Your task to perform on an android device: Add dell alienware to the cart on walmart.com Image 0: 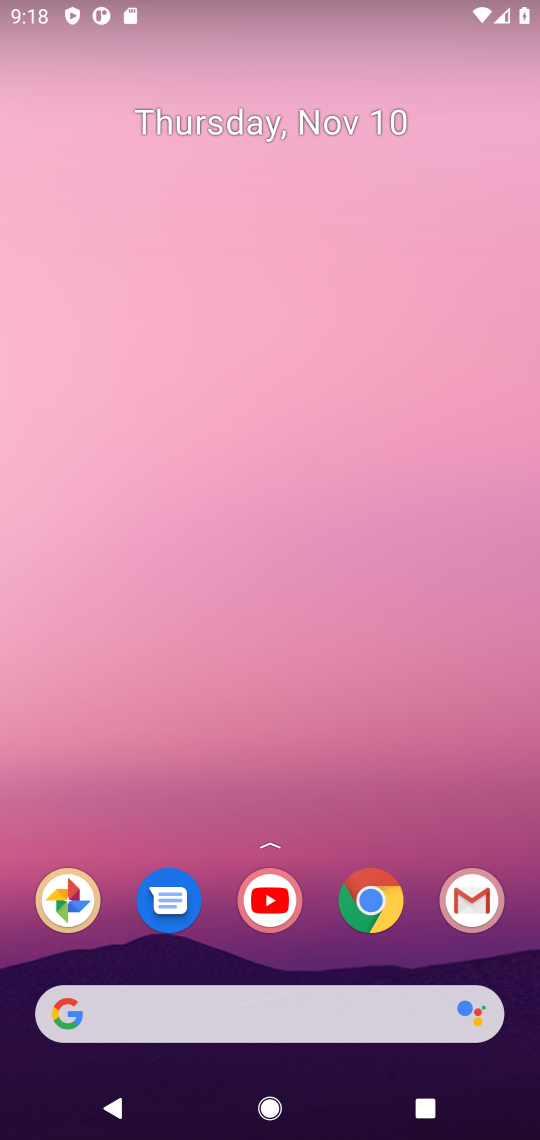
Step 0: click (367, 917)
Your task to perform on an android device: Add dell alienware to the cart on walmart.com Image 1: 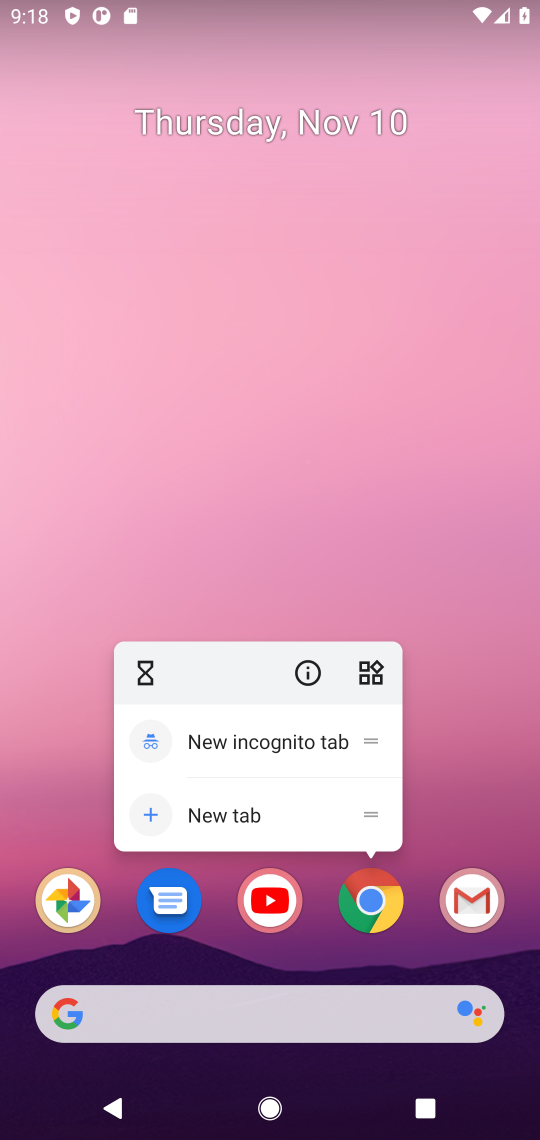
Step 1: click (368, 898)
Your task to perform on an android device: Add dell alienware to the cart on walmart.com Image 2: 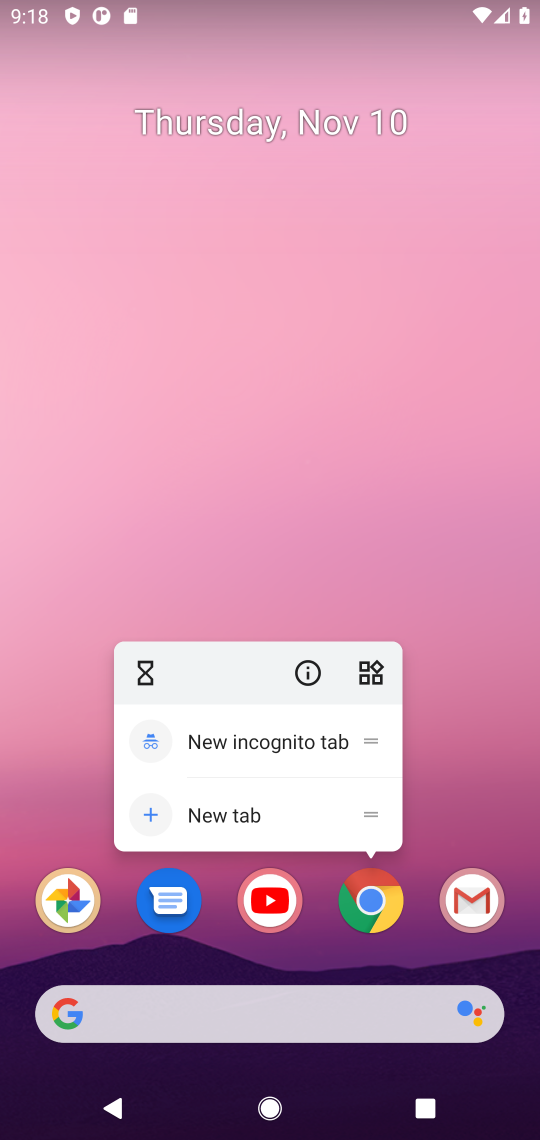
Step 2: click (368, 900)
Your task to perform on an android device: Add dell alienware to the cart on walmart.com Image 3: 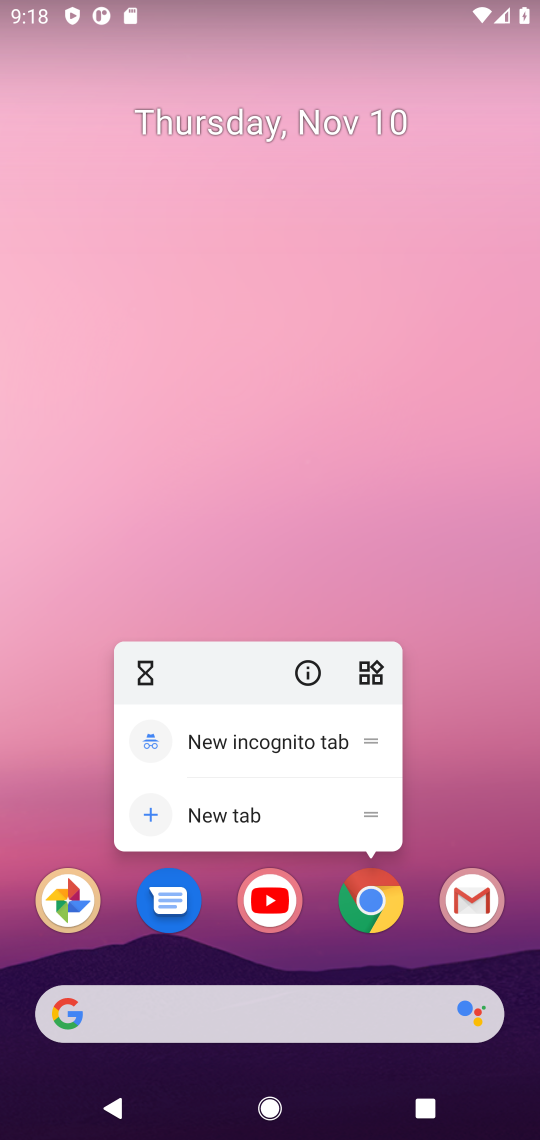
Step 3: click (377, 897)
Your task to perform on an android device: Add dell alienware to the cart on walmart.com Image 4: 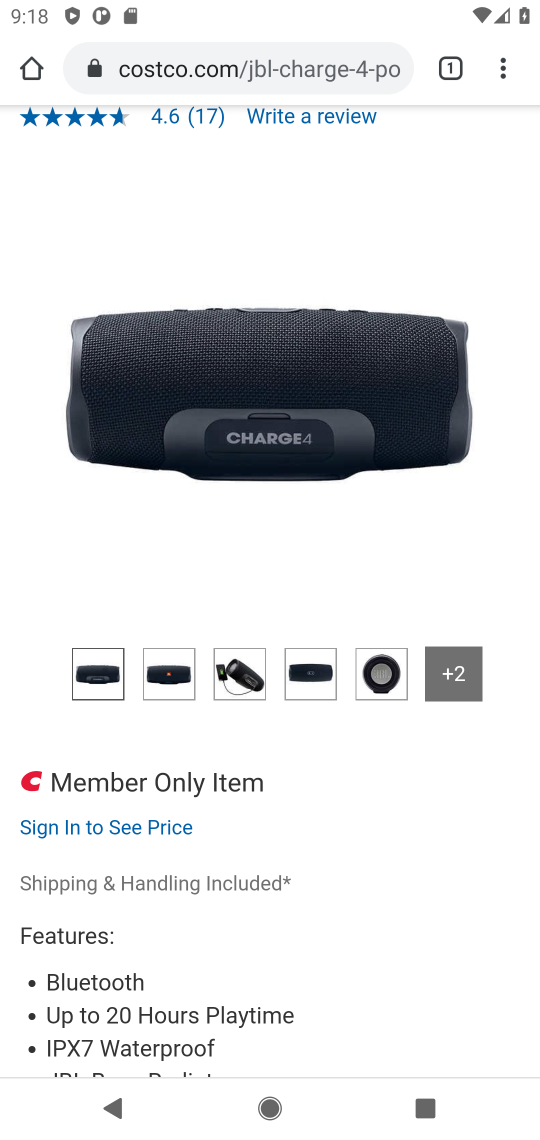
Step 4: click (322, 65)
Your task to perform on an android device: Add dell alienware to the cart on walmart.com Image 5: 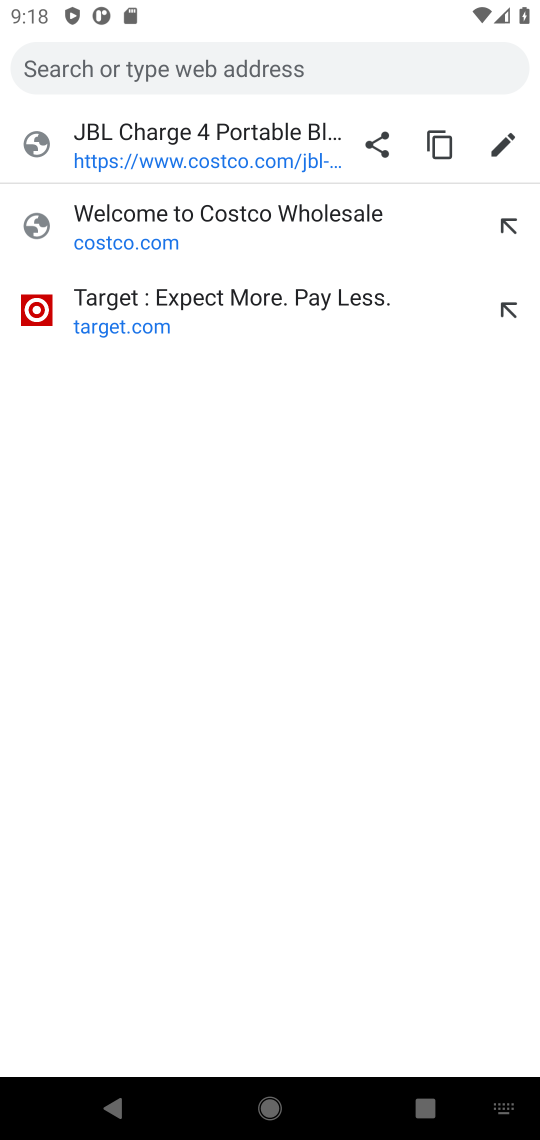
Step 5: type "walmart.com"
Your task to perform on an android device: Add dell alienware to the cart on walmart.com Image 6: 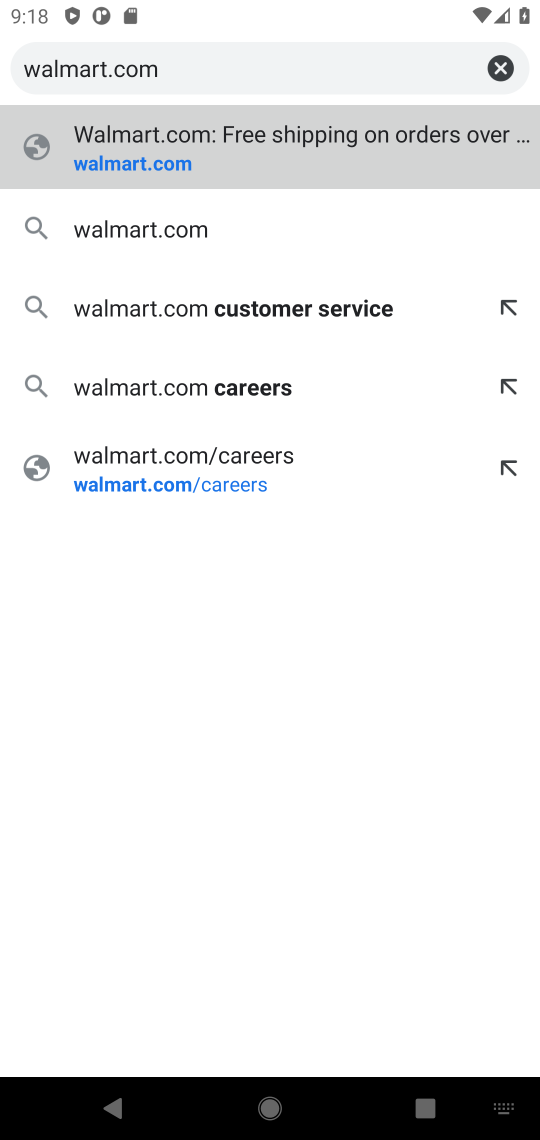
Step 6: press enter
Your task to perform on an android device: Add dell alienware to the cart on walmart.com Image 7: 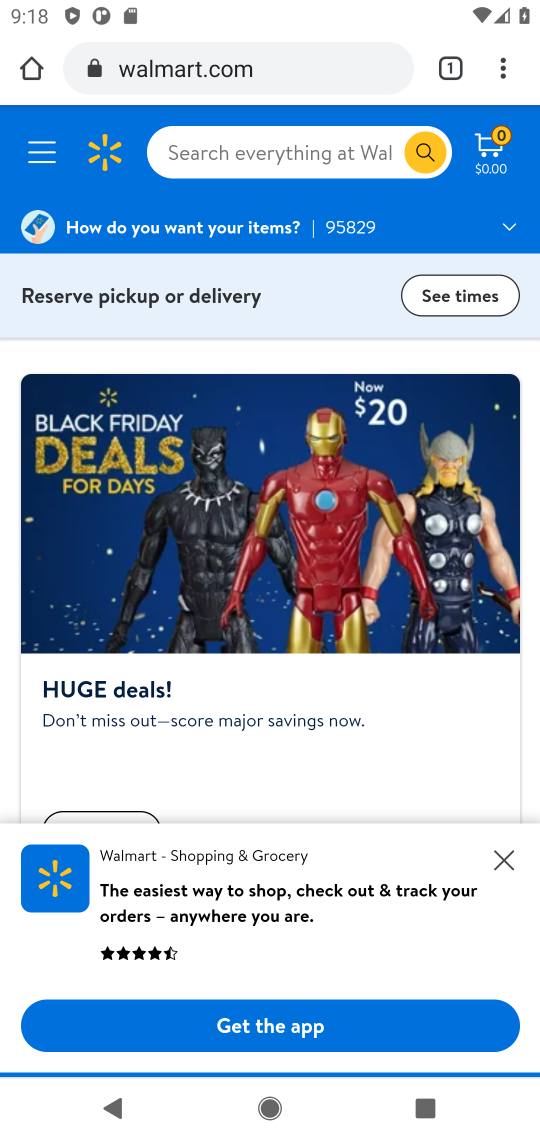
Step 7: click (288, 148)
Your task to perform on an android device: Add dell alienware to the cart on walmart.com Image 8: 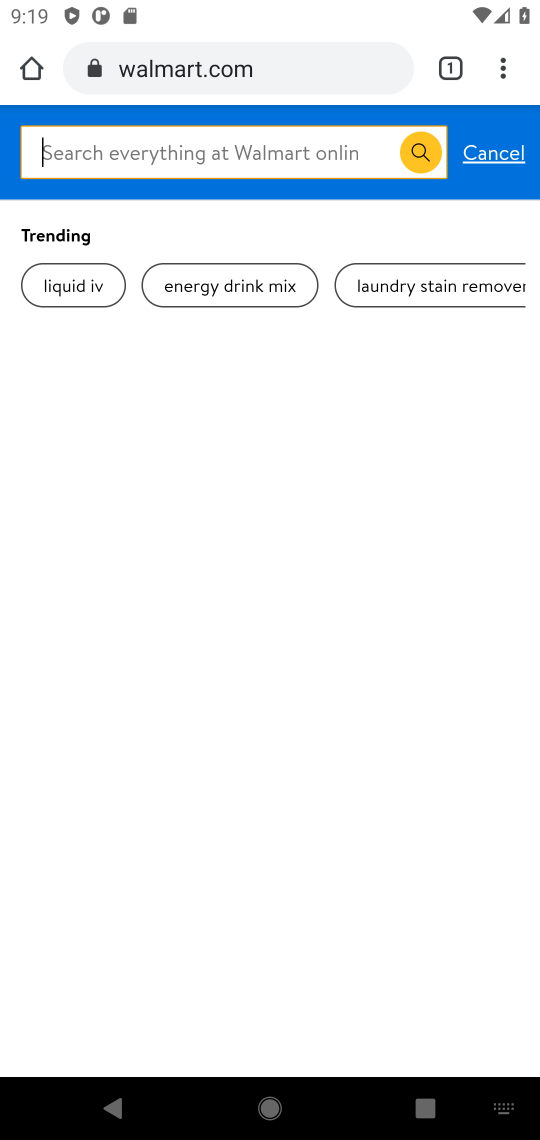
Step 8: type "dell alienware"
Your task to perform on an android device: Add dell alienware to the cart on walmart.com Image 9: 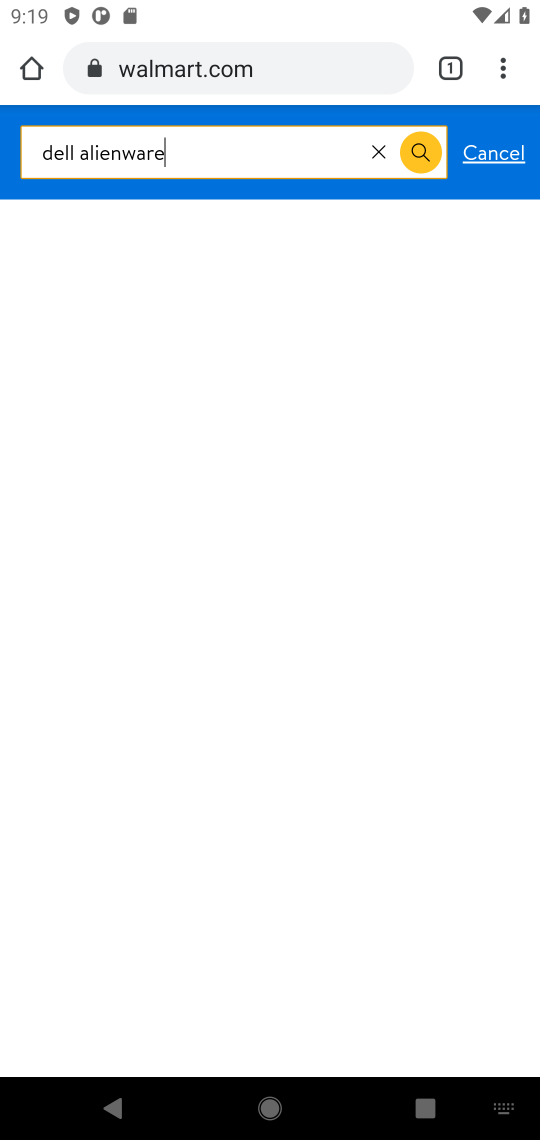
Step 9: press enter
Your task to perform on an android device: Add dell alienware to the cart on walmart.com Image 10: 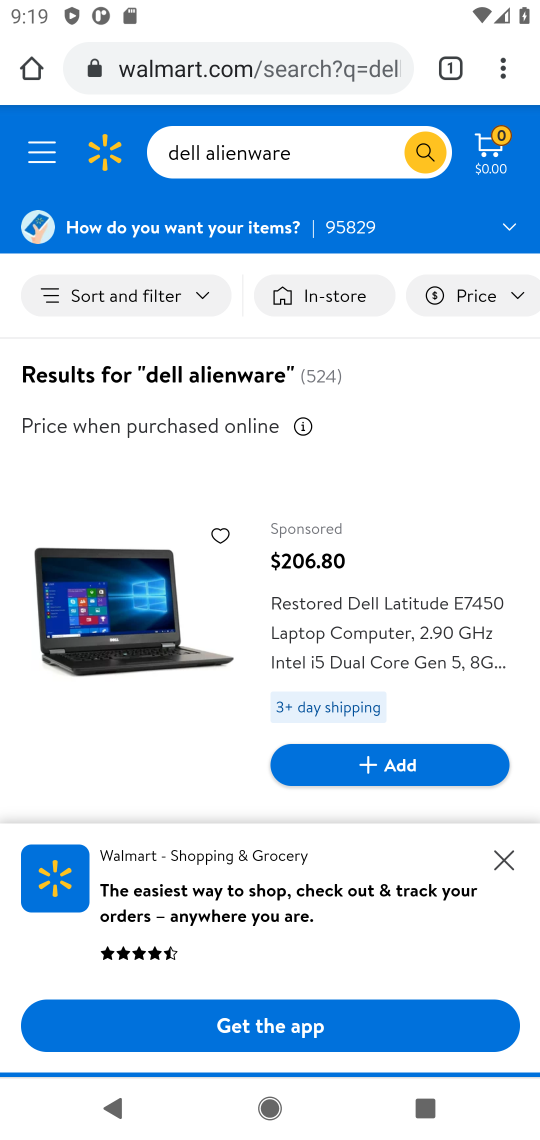
Step 10: click (499, 857)
Your task to perform on an android device: Add dell alienware to the cart on walmart.com Image 11: 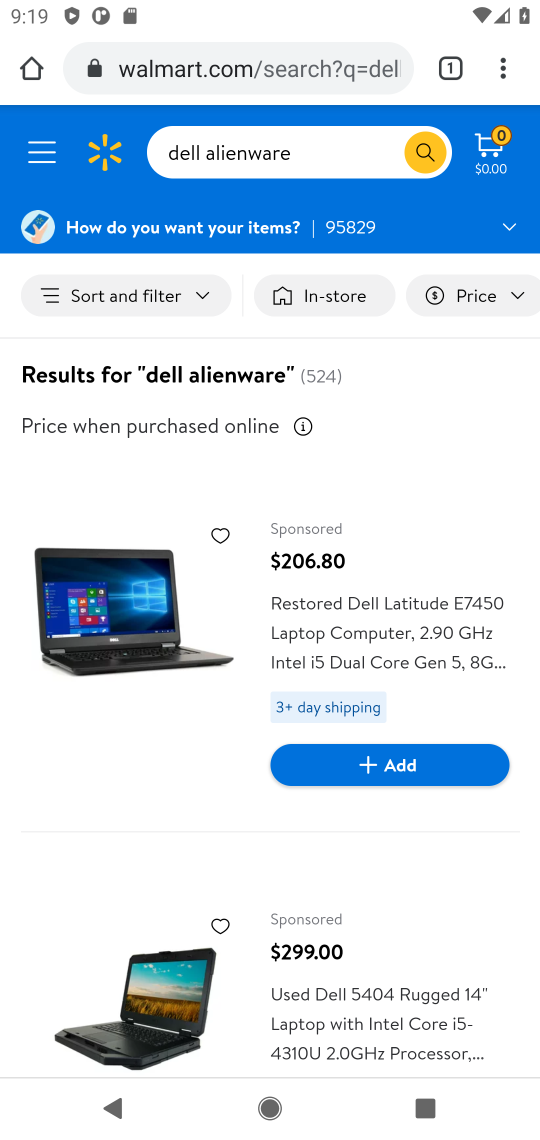
Step 11: task complete